Your task to perform on an android device: Open calendar and show me the second week of next month Image 0: 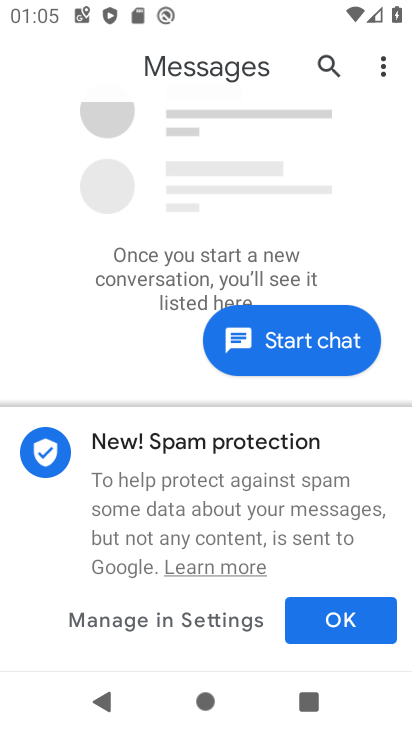
Step 0: press home button
Your task to perform on an android device: Open calendar and show me the second week of next month Image 1: 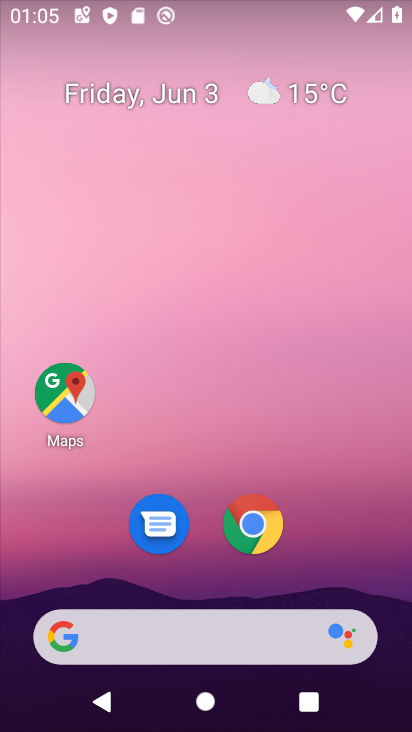
Step 1: drag from (349, 546) to (327, 18)
Your task to perform on an android device: Open calendar and show me the second week of next month Image 2: 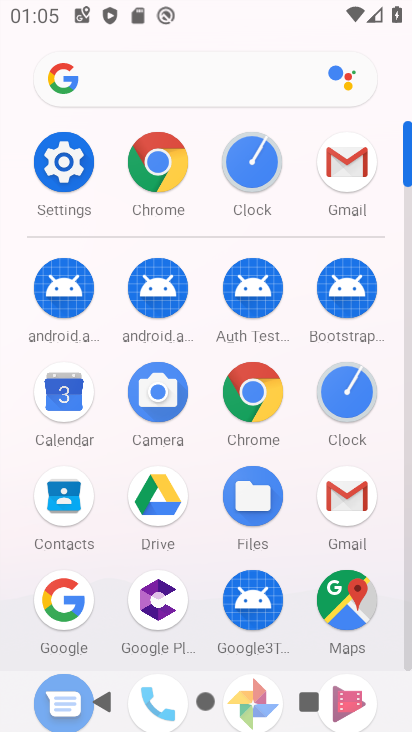
Step 2: click (66, 389)
Your task to perform on an android device: Open calendar and show me the second week of next month Image 3: 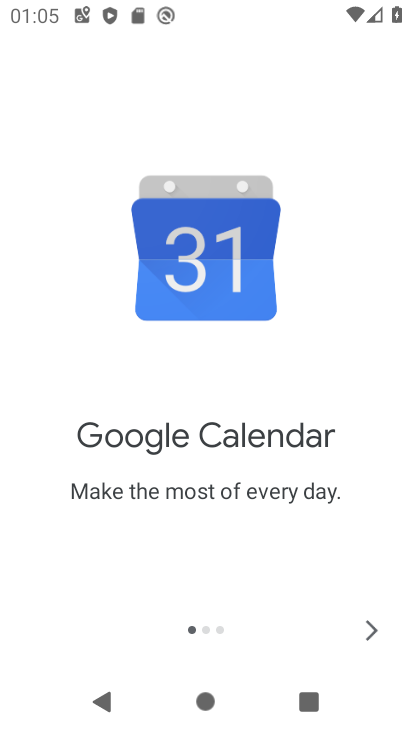
Step 3: click (367, 618)
Your task to perform on an android device: Open calendar and show me the second week of next month Image 4: 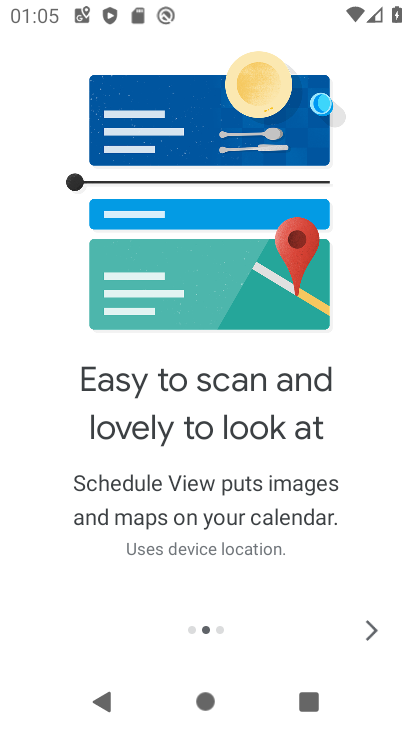
Step 4: click (369, 615)
Your task to perform on an android device: Open calendar and show me the second week of next month Image 5: 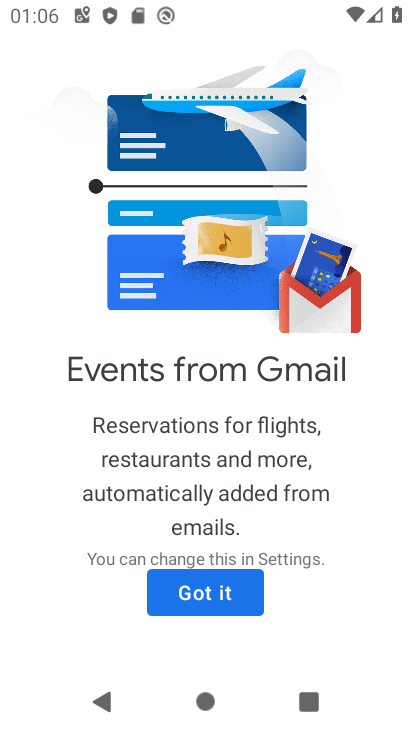
Step 5: click (250, 585)
Your task to perform on an android device: Open calendar and show me the second week of next month Image 6: 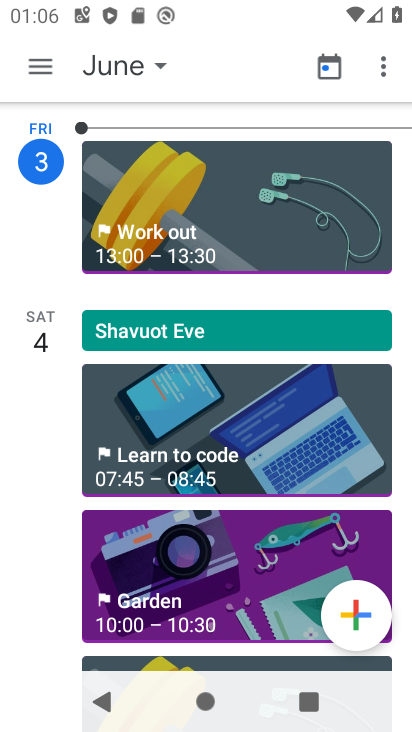
Step 6: click (41, 60)
Your task to perform on an android device: Open calendar and show me the second week of next month Image 7: 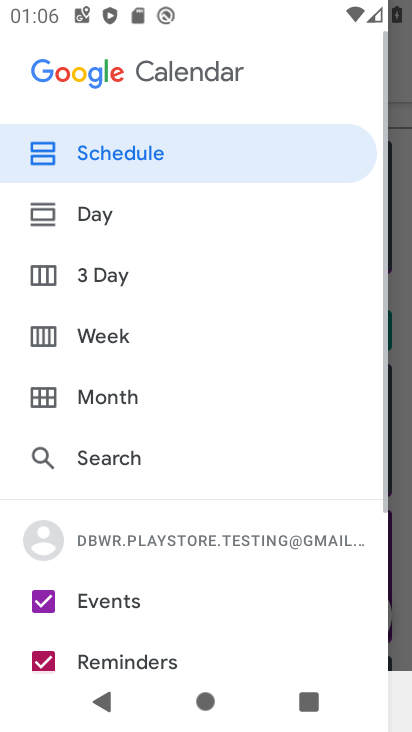
Step 7: click (55, 391)
Your task to perform on an android device: Open calendar and show me the second week of next month Image 8: 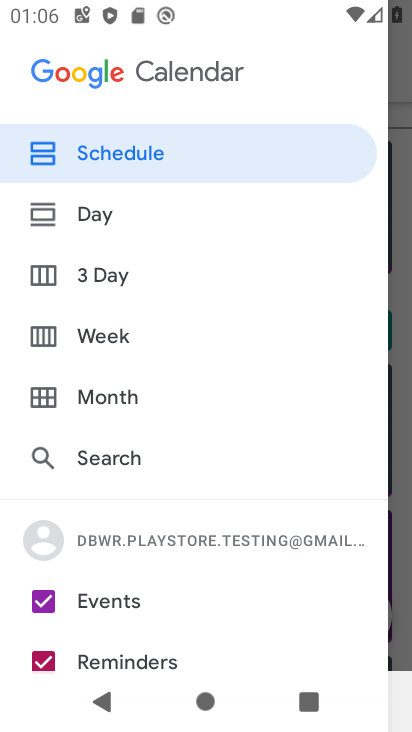
Step 8: click (50, 397)
Your task to perform on an android device: Open calendar and show me the second week of next month Image 9: 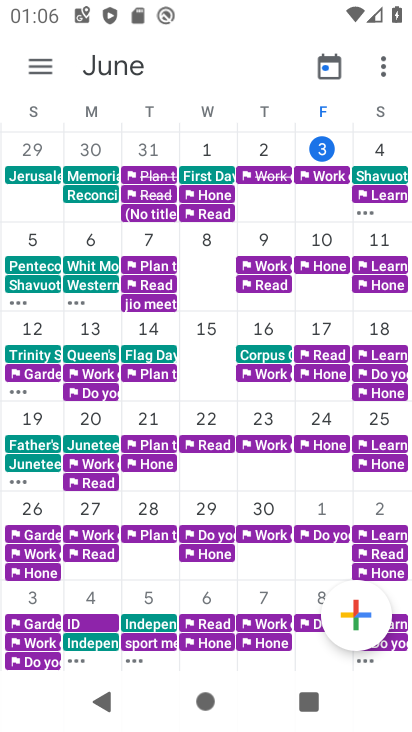
Step 9: drag from (374, 411) to (9, 351)
Your task to perform on an android device: Open calendar and show me the second week of next month Image 10: 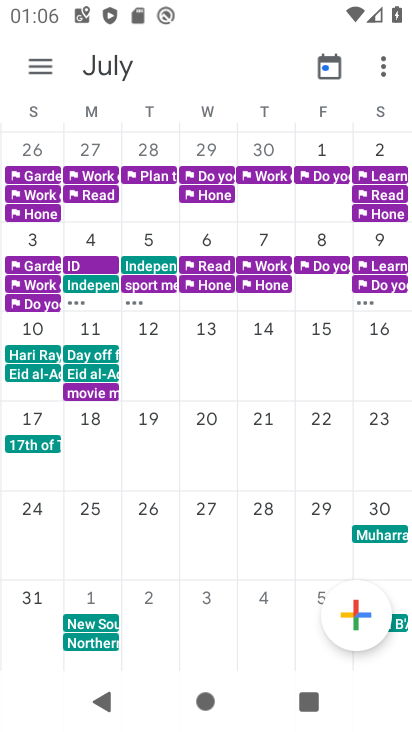
Step 10: click (27, 318)
Your task to perform on an android device: Open calendar and show me the second week of next month Image 11: 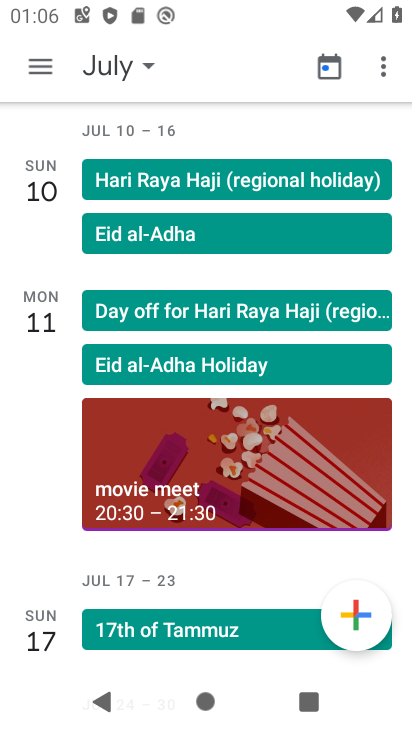
Step 11: click (40, 61)
Your task to perform on an android device: Open calendar and show me the second week of next month Image 12: 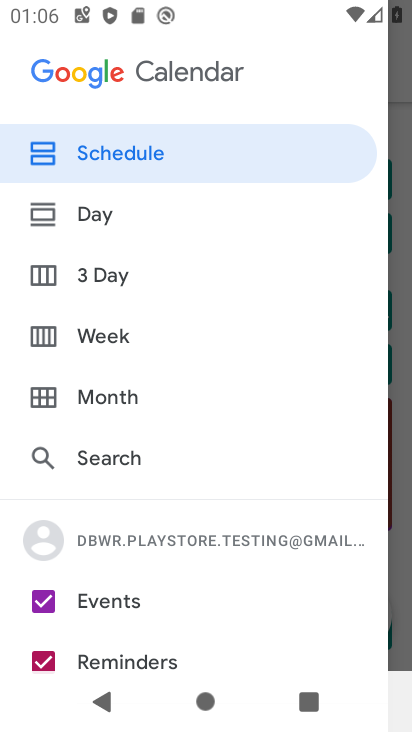
Step 12: click (41, 332)
Your task to perform on an android device: Open calendar and show me the second week of next month Image 13: 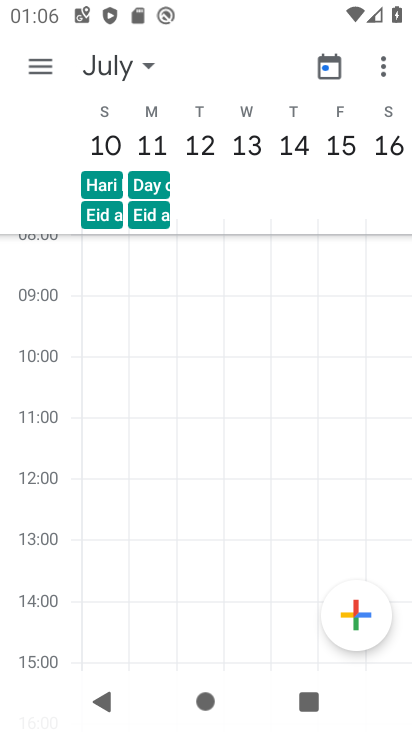
Step 13: task complete